Your task to perform on an android device: Go to Google maps Image 0: 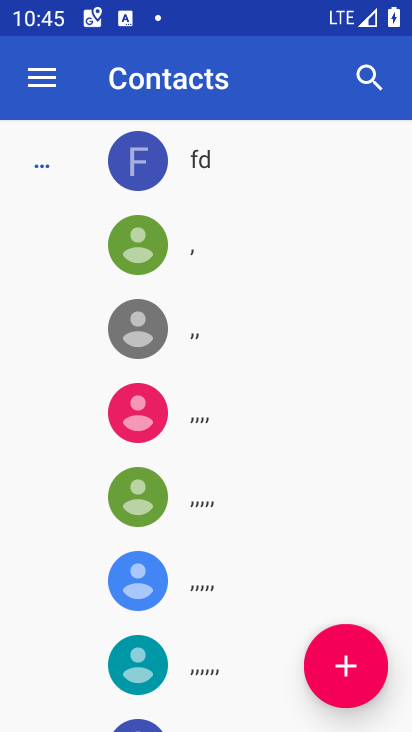
Step 0: press home button
Your task to perform on an android device: Go to Google maps Image 1: 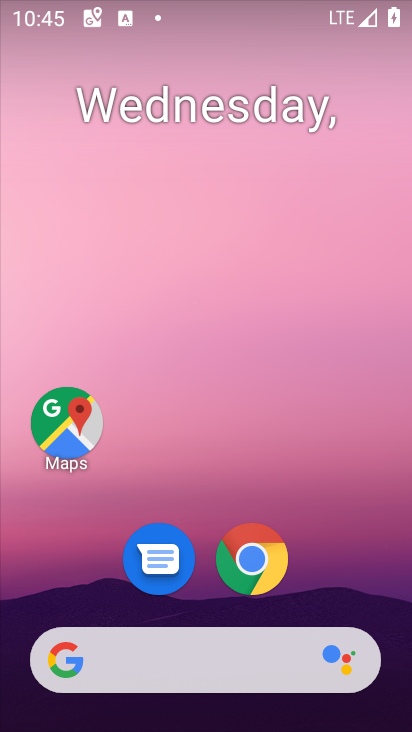
Step 1: drag from (214, 621) to (171, 176)
Your task to perform on an android device: Go to Google maps Image 2: 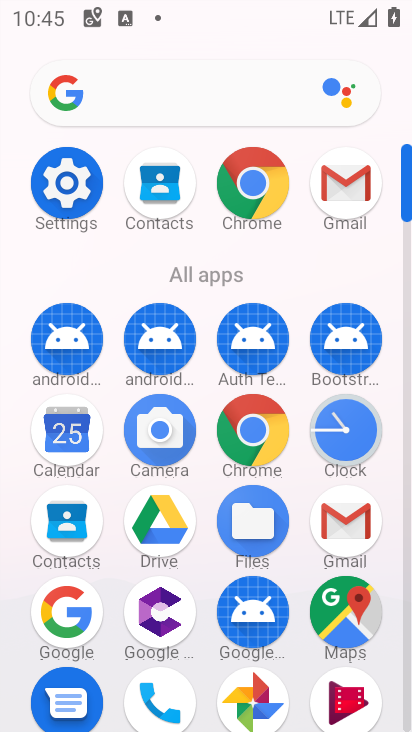
Step 2: drag from (199, 530) to (200, 340)
Your task to perform on an android device: Go to Google maps Image 3: 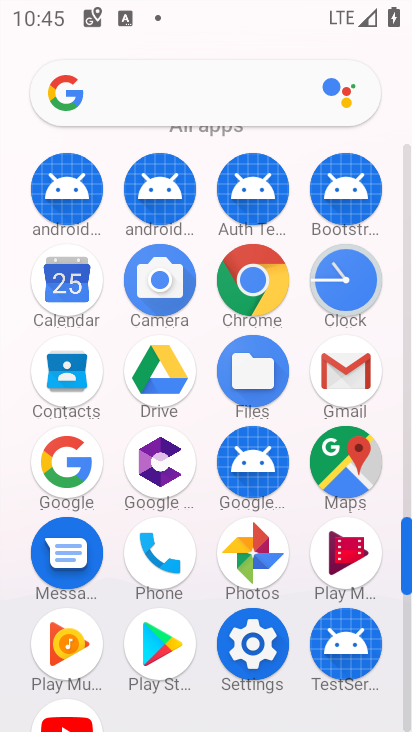
Step 3: click (355, 481)
Your task to perform on an android device: Go to Google maps Image 4: 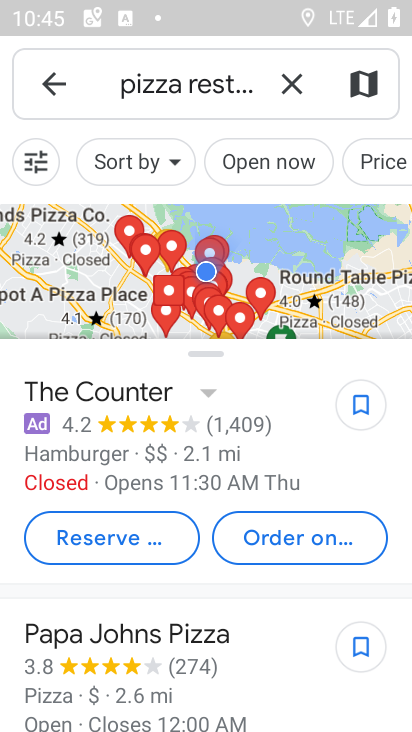
Step 4: task complete